Your task to perform on an android device: turn on sleep mode Image 0: 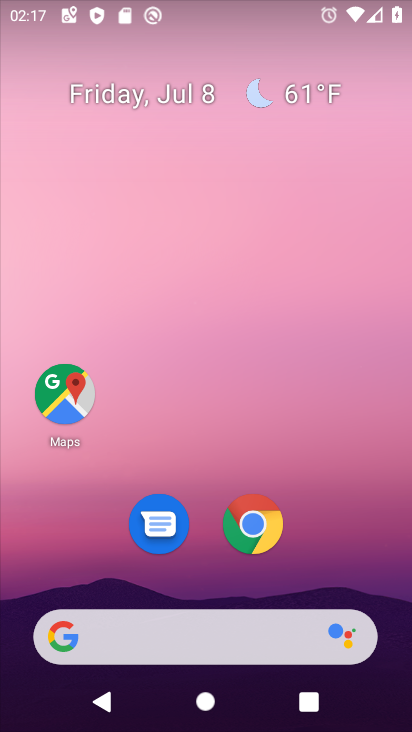
Step 0: drag from (318, 548) to (372, 9)
Your task to perform on an android device: turn on sleep mode Image 1: 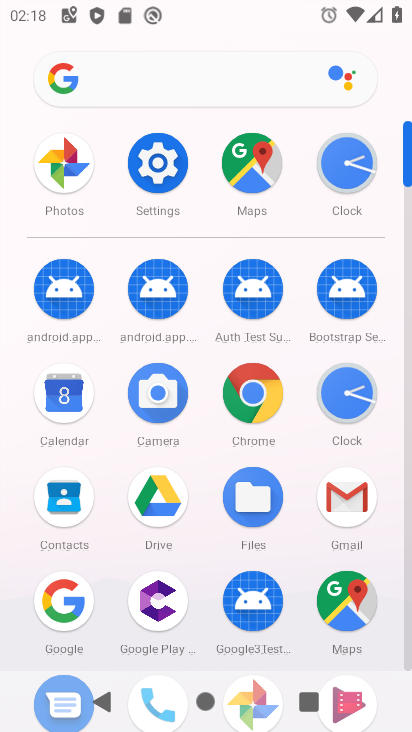
Step 1: click (162, 155)
Your task to perform on an android device: turn on sleep mode Image 2: 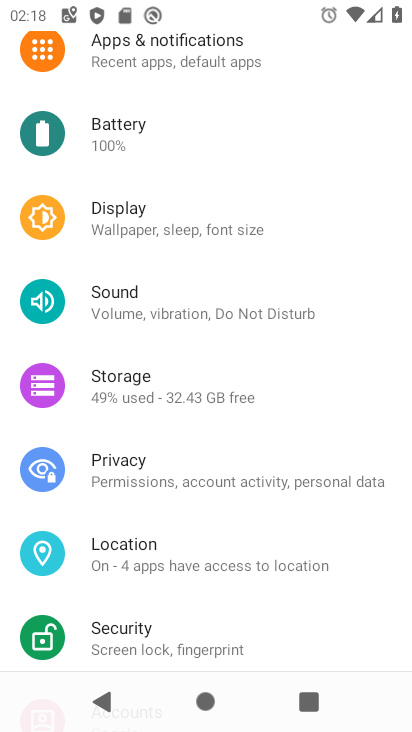
Step 2: click (185, 221)
Your task to perform on an android device: turn on sleep mode Image 3: 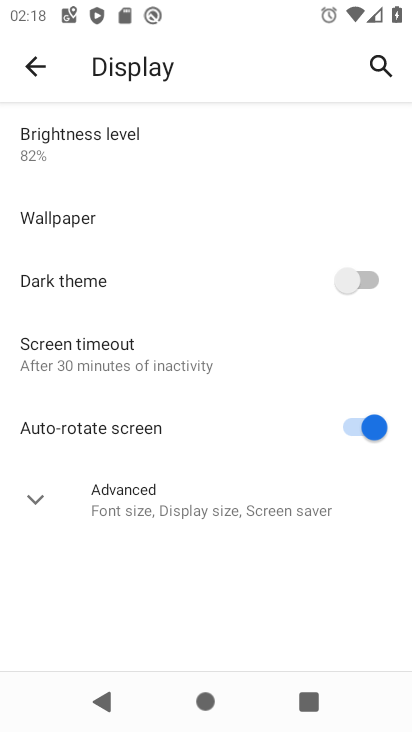
Step 3: click (39, 498)
Your task to perform on an android device: turn on sleep mode Image 4: 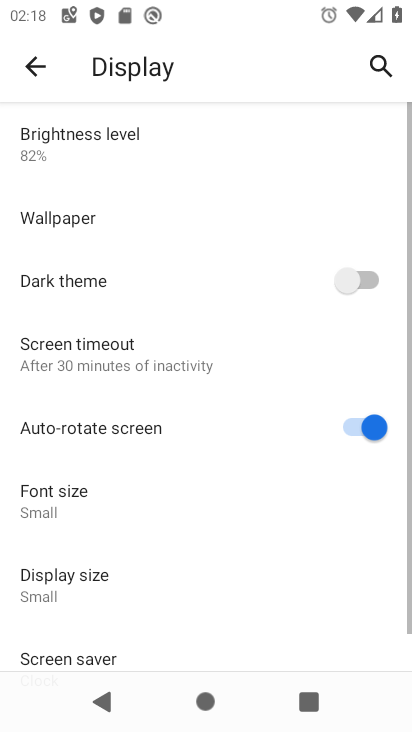
Step 4: task complete